Your task to perform on an android device: open app "Microsoft Outlook" Image 0: 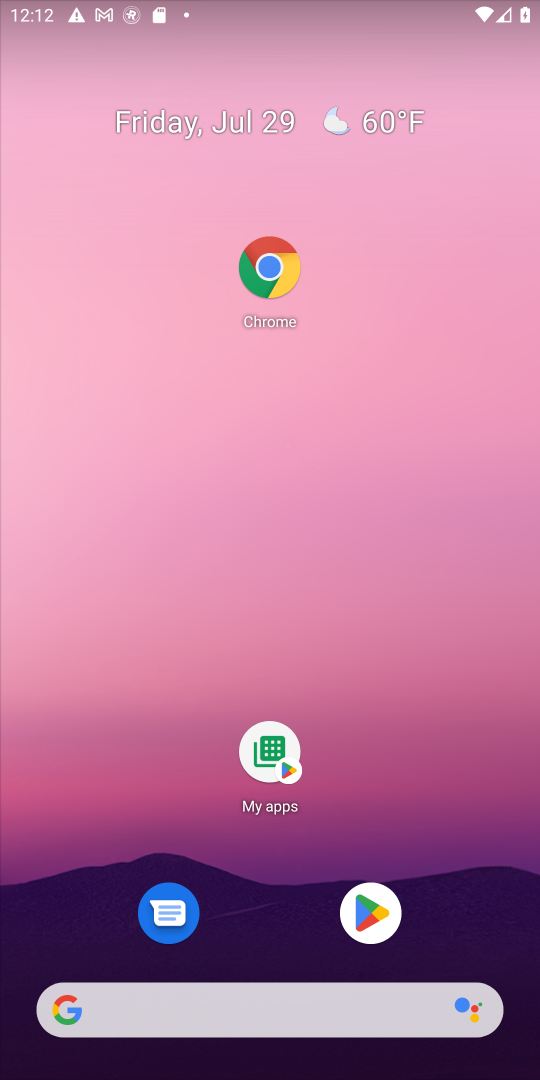
Step 0: click (363, 900)
Your task to perform on an android device: open app "Microsoft Outlook" Image 1: 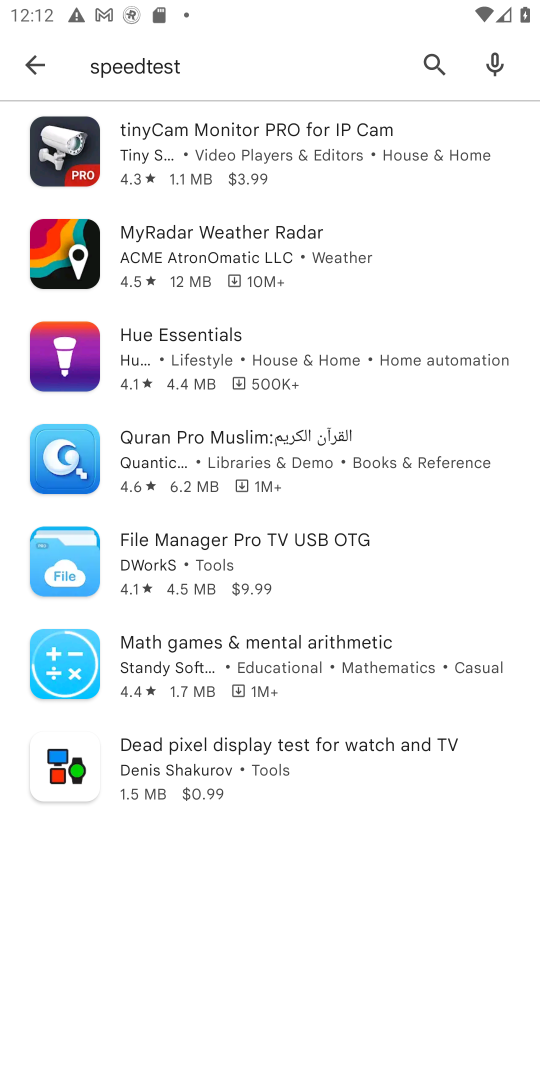
Step 1: click (450, 53)
Your task to perform on an android device: open app "Microsoft Outlook" Image 2: 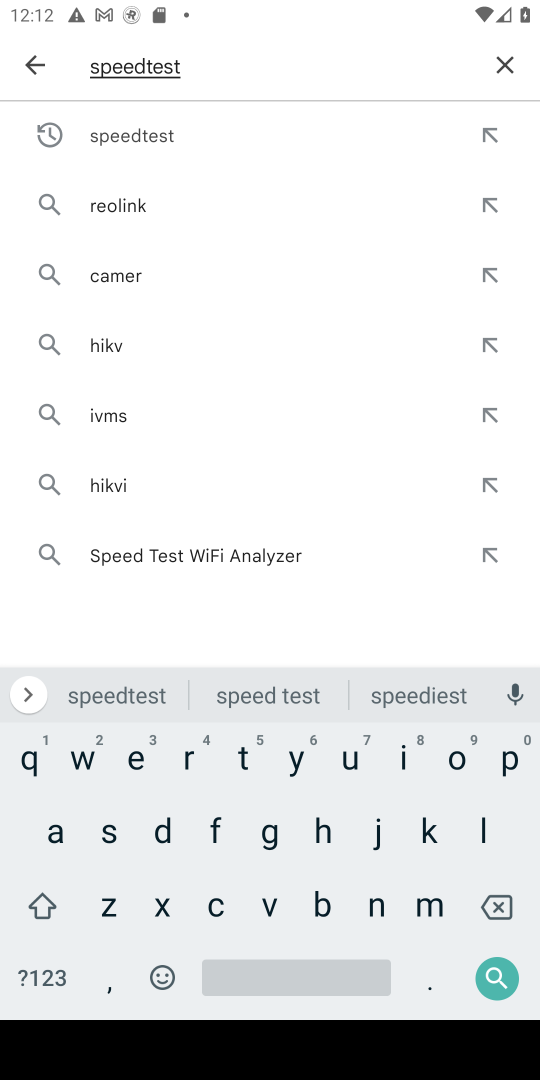
Step 2: click (502, 56)
Your task to perform on an android device: open app "Microsoft Outlook" Image 3: 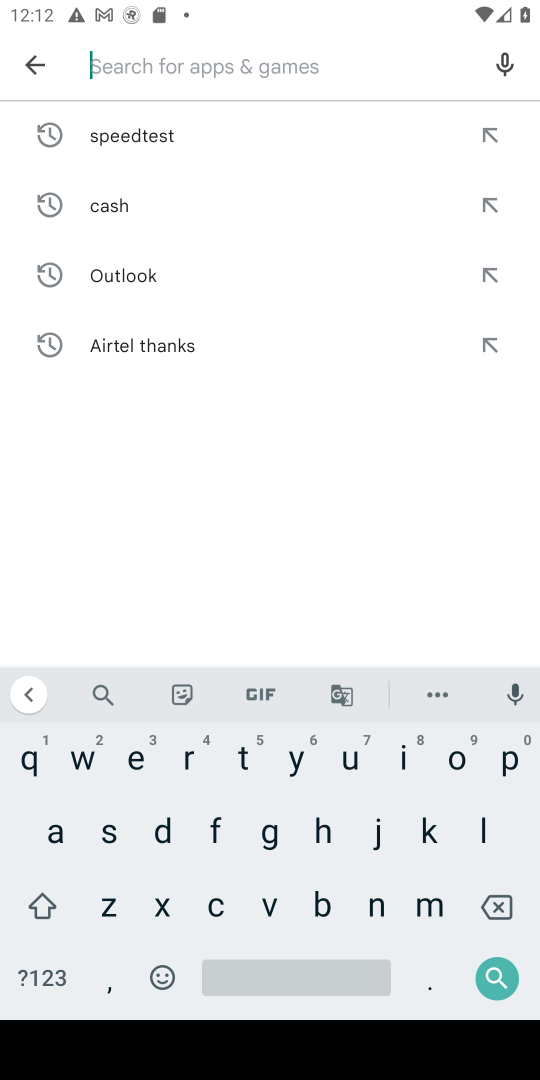
Step 3: click (428, 900)
Your task to perform on an android device: open app "Microsoft Outlook" Image 4: 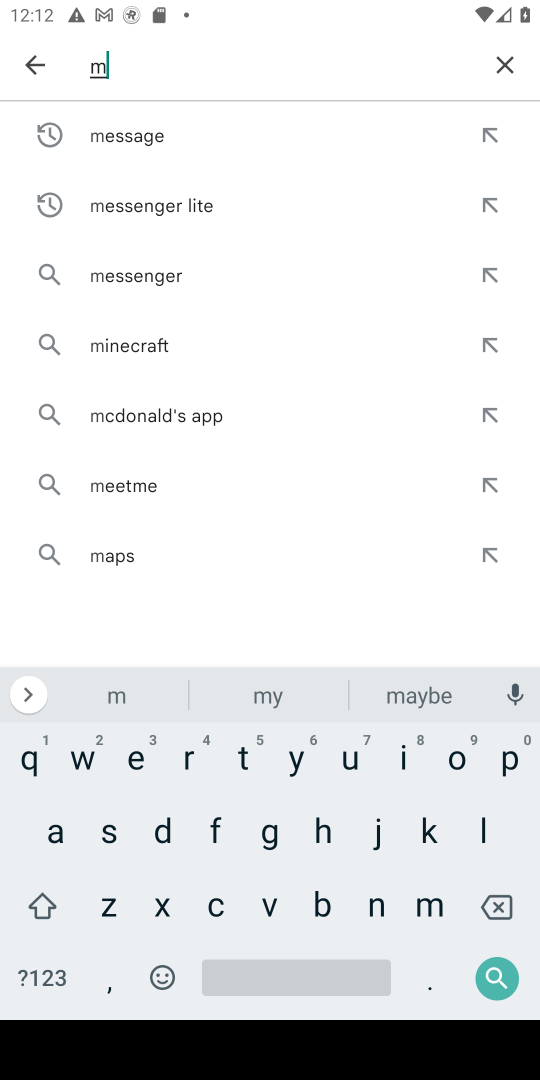
Step 4: click (500, 915)
Your task to perform on an android device: open app "Microsoft Outlook" Image 5: 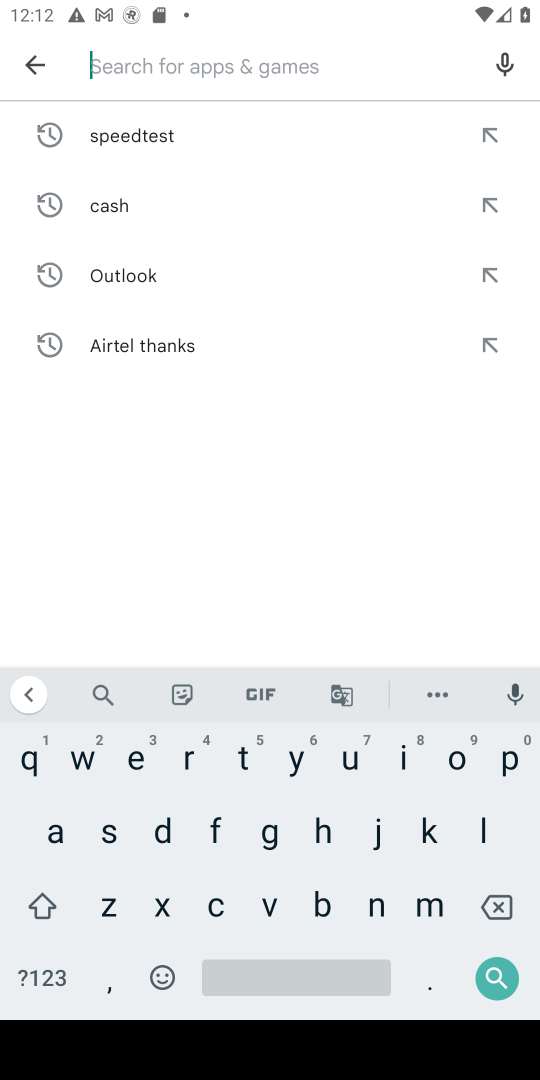
Step 5: click (449, 756)
Your task to perform on an android device: open app "Microsoft Outlook" Image 6: 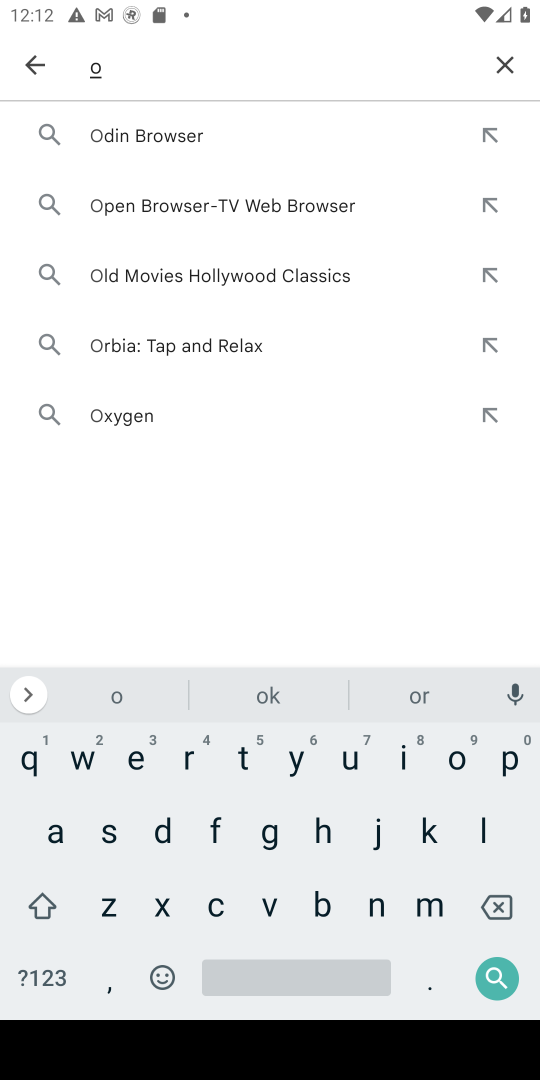
Step 6: click (494, 905)
Your task to perform on an android device: open app "Microsoft Outlook" Image 7: 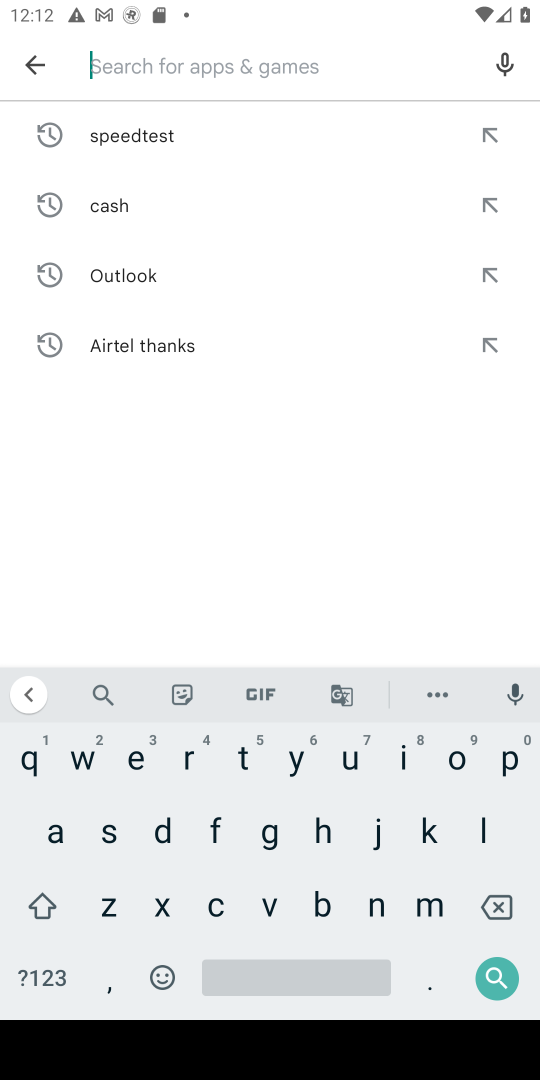
Step 7: click (139, 275)
Your task to perform on an android device: open app "Microsoft Outlook" Image 8: 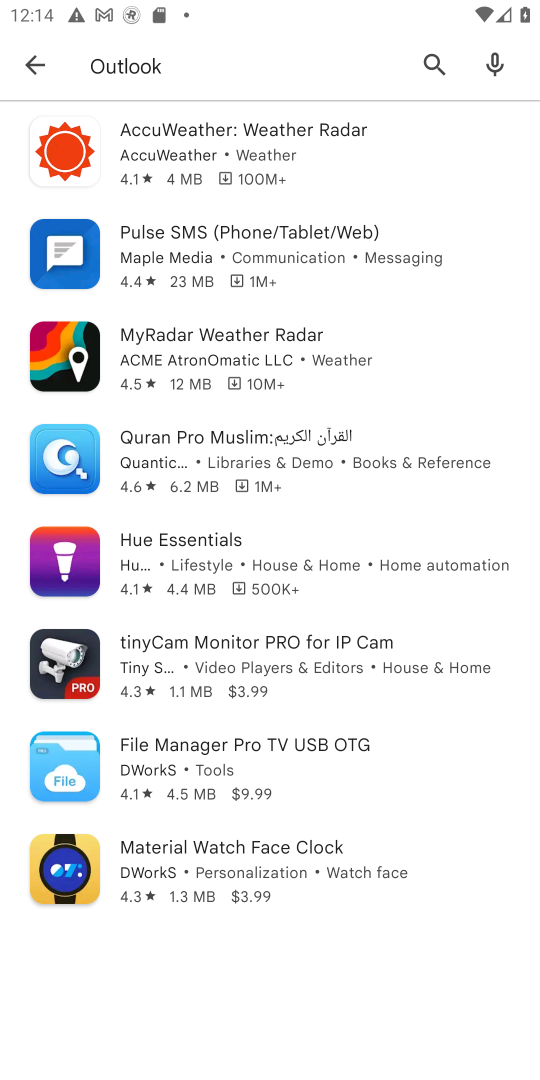
Step 8: task complete